Your task to perform on an android device: Go to internet settings Image 0: 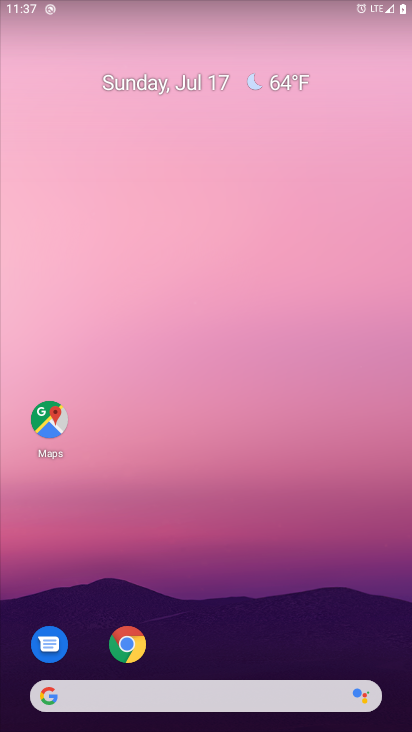
Step 0: press home button
Your task to perform on an android device: Go to internet settings Image 1: 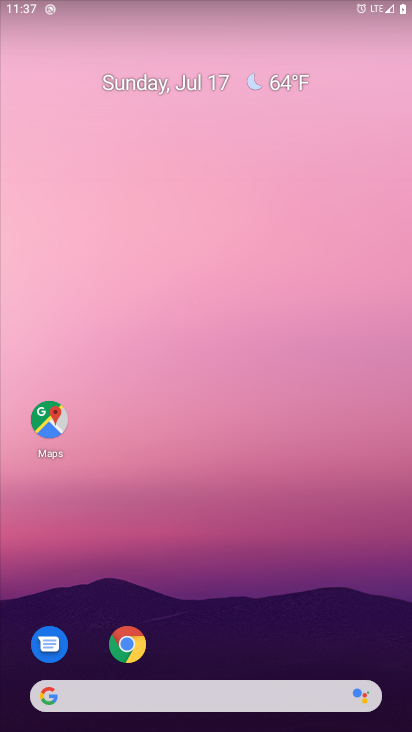
Step 1: drag from (310, 605) to (297, 110)
Your task to perform on an android device: Go to internet settings Image 2: 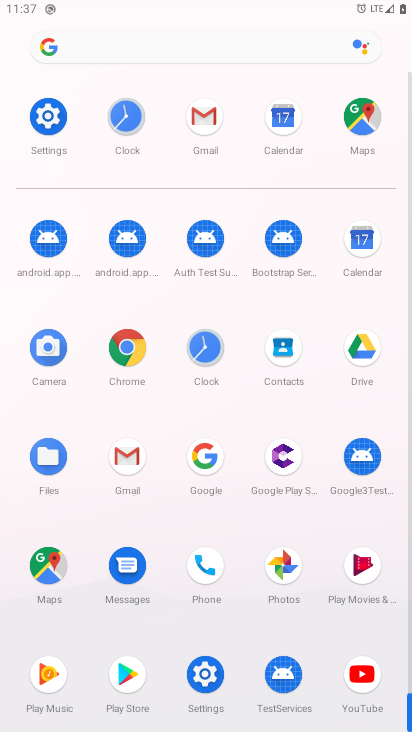
Step 2: click (53, 114)
Your task to perform on an android device: Go to internet settings Image 3: 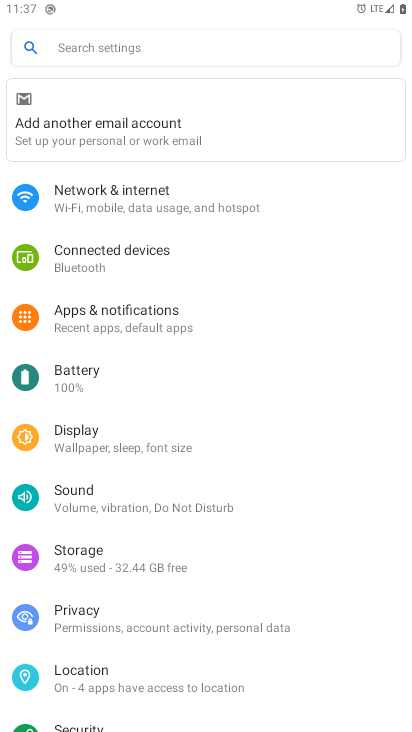
Step 3: click (157, 195)
Your task to perform on an android device: Go to internet settings Image 4: 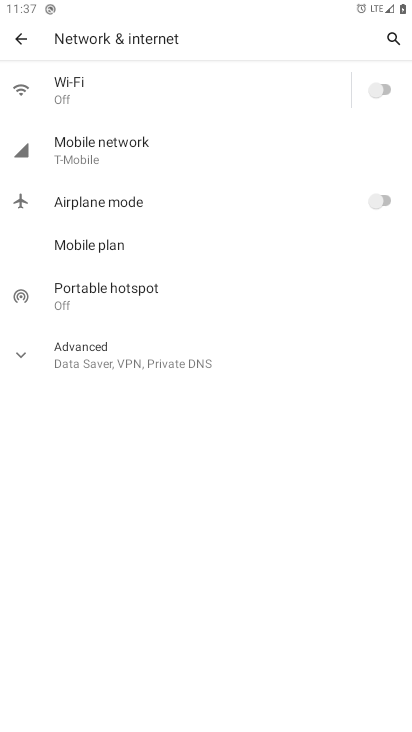
Step 4: task complete